Your task to perform on an android device: Go to Android settings Image 0: 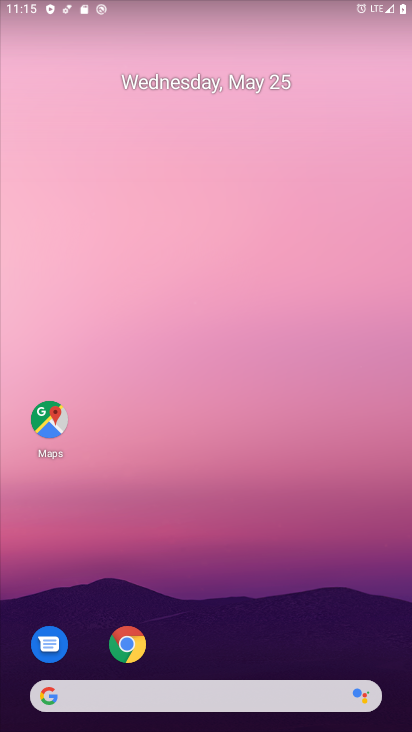
Step 0: drag from (302, 632) to (238, 89)
Your task to perform on an android device: Go to Android settings Image 1: 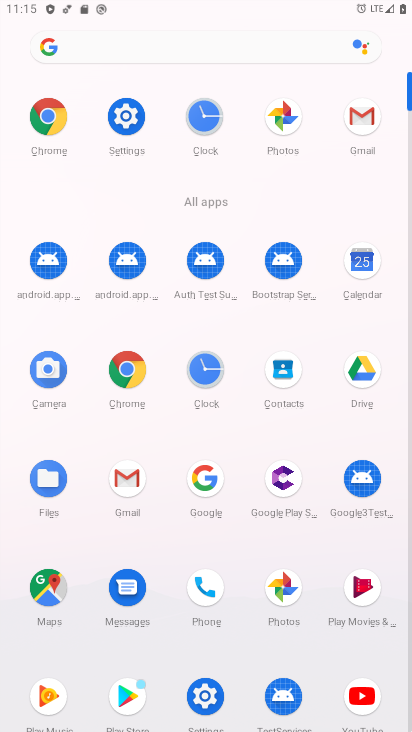
Step 1: click (127, 115)
Your task to perform on an android device: Go to Android settings Image 2: 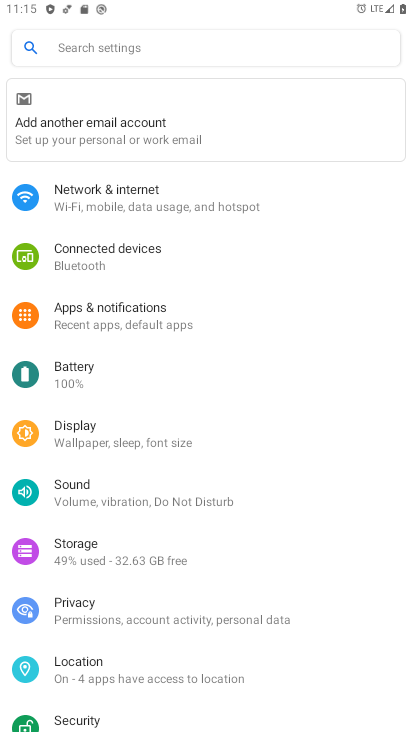
Step 2: task complete